Your task to perform on an android device: Open Google Image 0: 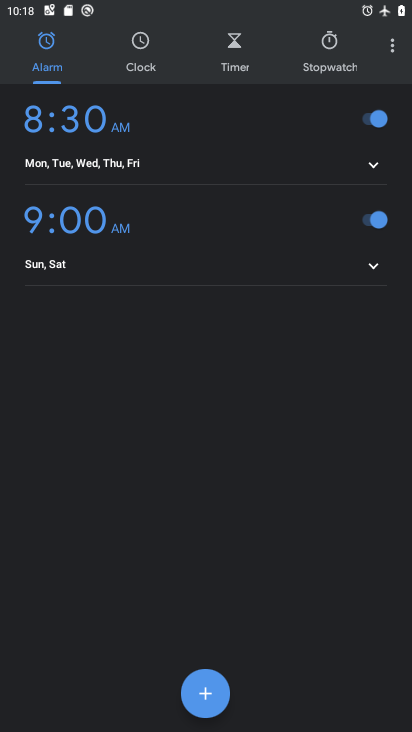
Step 0: press home button
Your task to perform on an android device: Open Google Image 1: 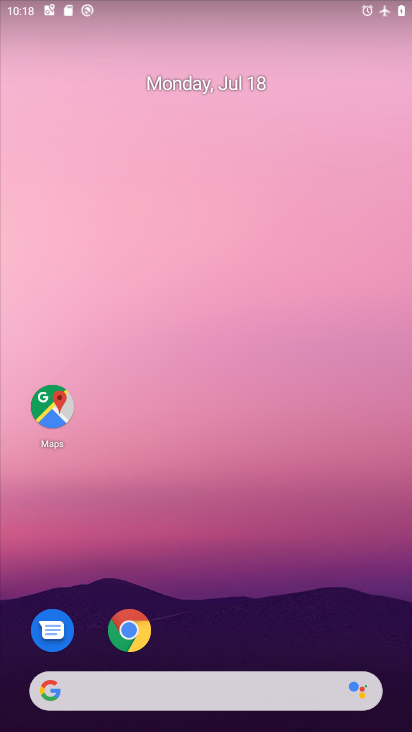
Step 1: drag from (220, 638) to (215, 167)
Your task to perform on an android device: Open Google Image 2: 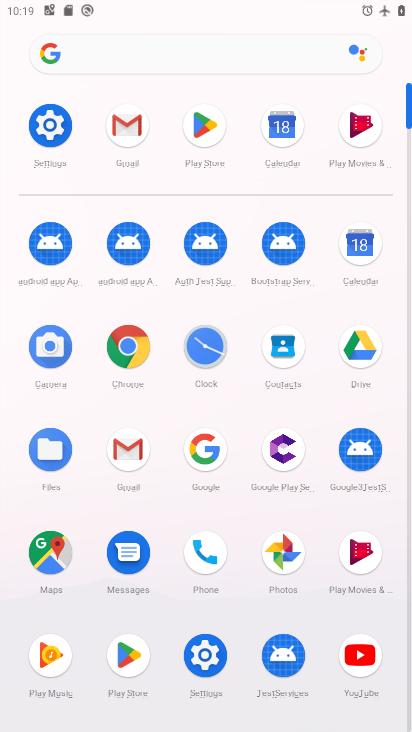
Step 2: click (188, 449)
Your task to perform on an android device: Open Google Image 3: 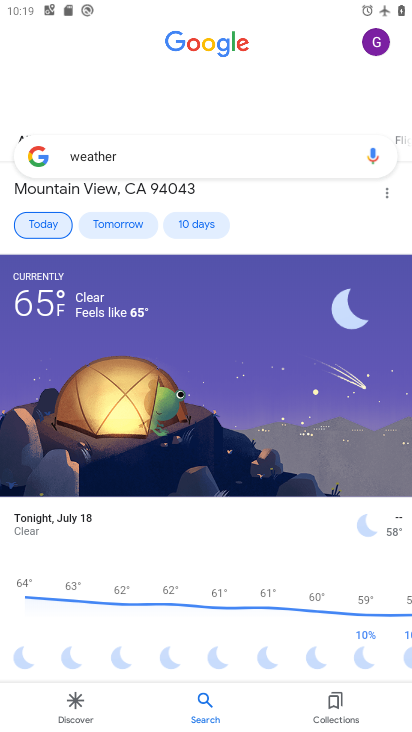
Step 3: task complete